Your task to perform on an android device: turn on location history Image 0: 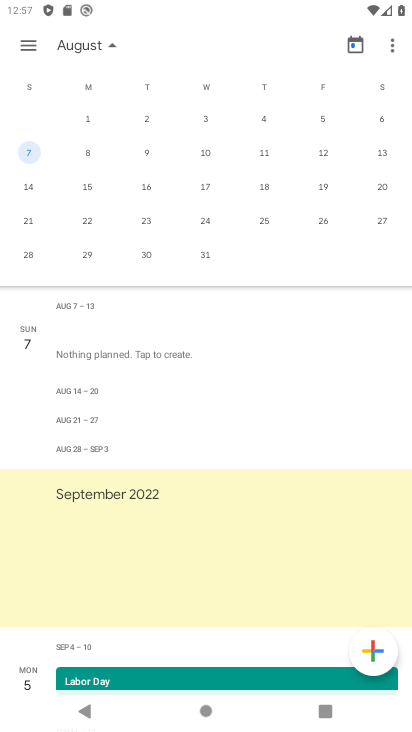
Step 0: press home button
Your task to perform on an android device: turn on location history Image 1: 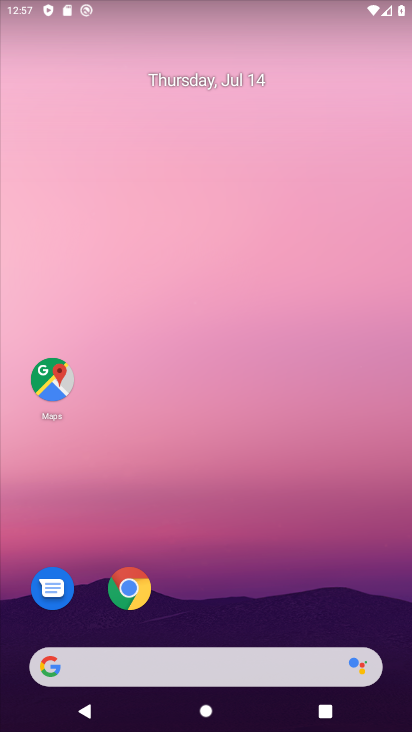
Step 1: drag from (155, 700) to (258, 5)
Your task to perform on an android device: turn on location history Image 2: 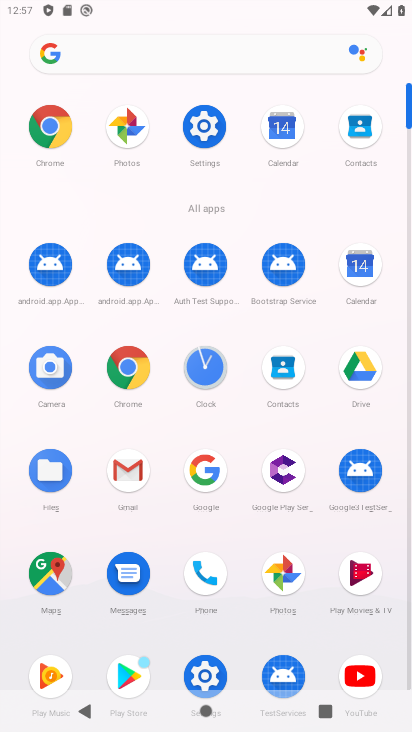
Step 2: click (42, 572)
Your task to perform on an android device: turn on location history Image 3: 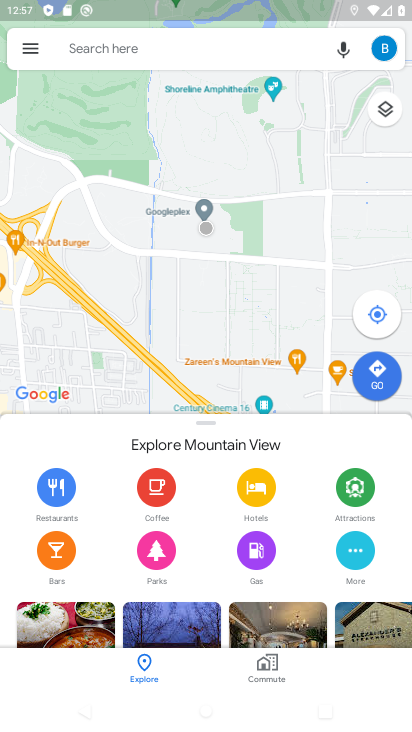
Step 3: click (31, 54)
Your task to perform on an android device: turn on location history Image 4: 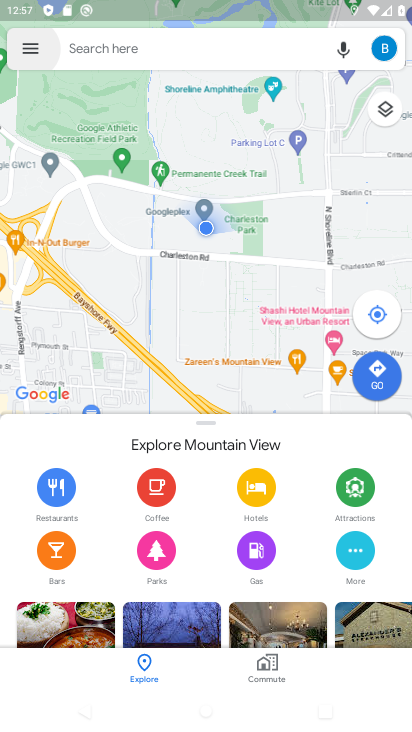
Step 4: click (31, 54)
Your task to perform on an android device: turn on location history Image 5: 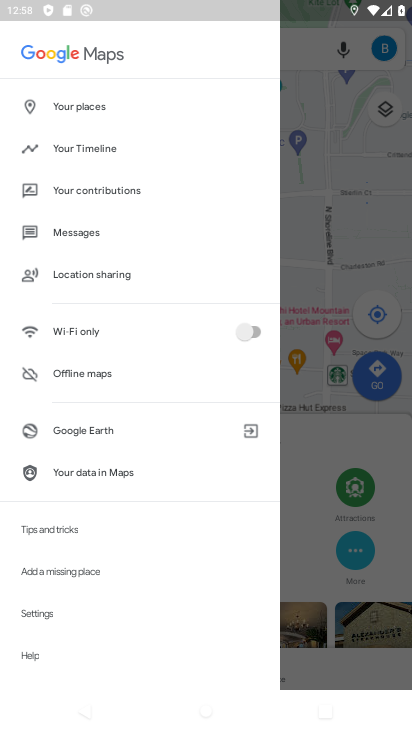
Step 5: click (97, 145)
Your task to perform on an android device: turn on location history Image 6: 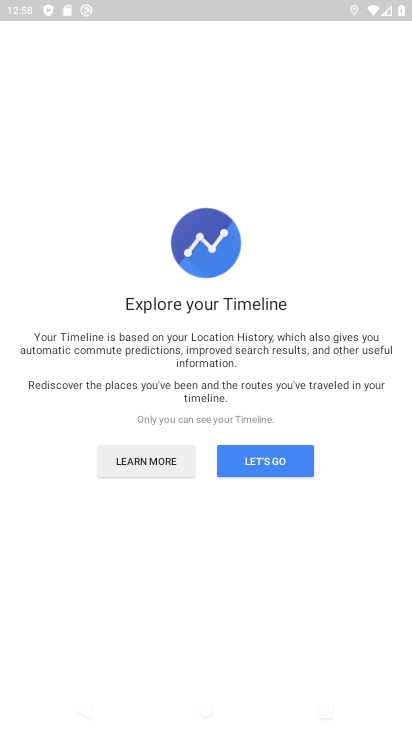
Step 6: click (299, 462)
Your task to perform on an android device: turn on location history Image 7: 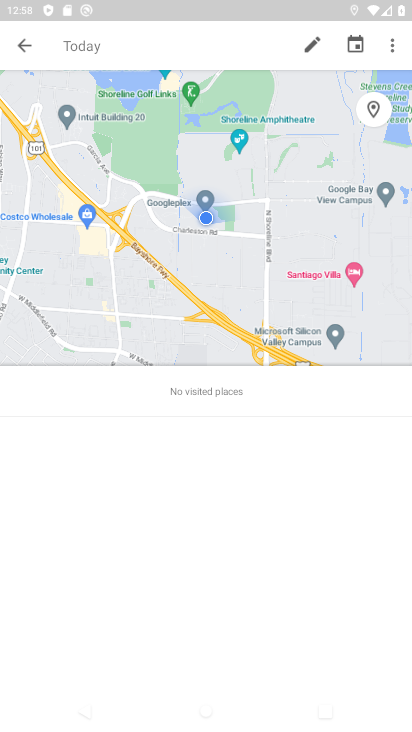
Step 7: click (394, 44)
Your task to perform on an android device: turn on location history Image 8: 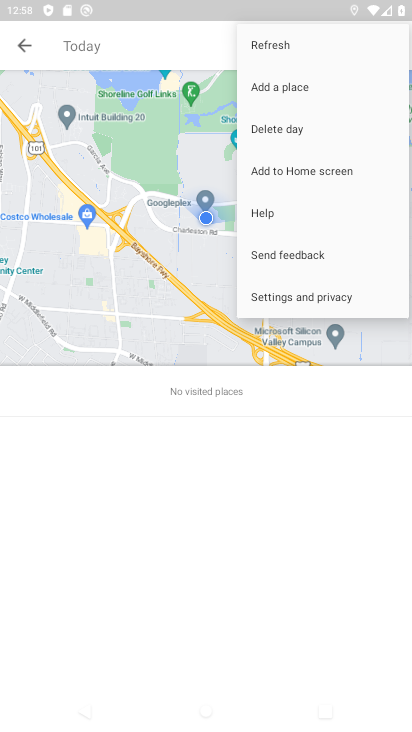
Step 8: click (277, 295)
Your task to perform on an android device: turn on location history Image 9: 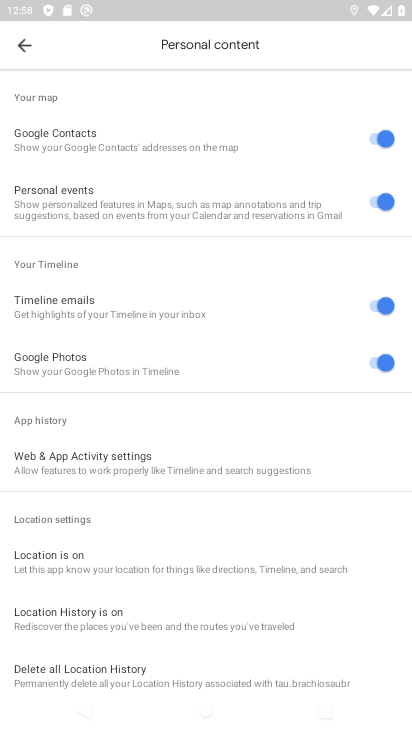
Step 9: click (127, 619)
Your task to perform on an android device: turn on location history Image 10: 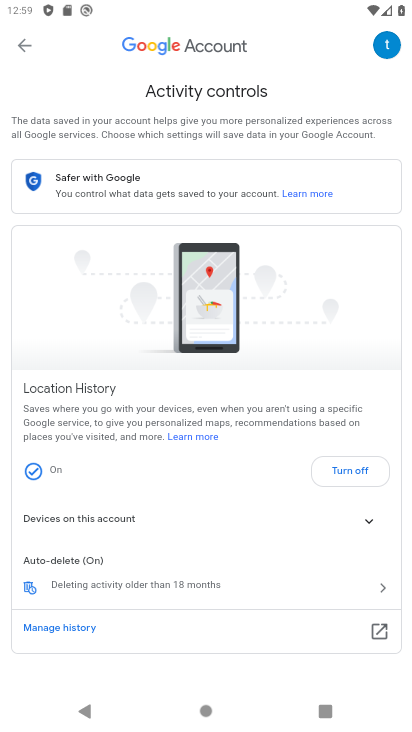
Step 10: task complete